Your task to perform on an android device: What is the news today? Image 0: 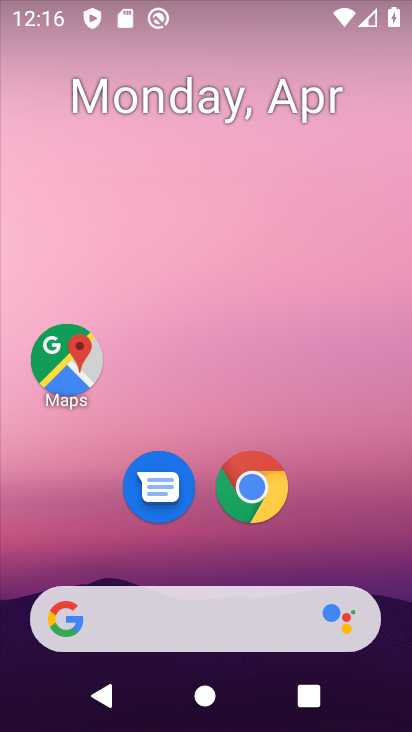
Step 0: drag from (402, 629) to (256, 123)
Your task to perform on an android device: What is the news today? Image 1: 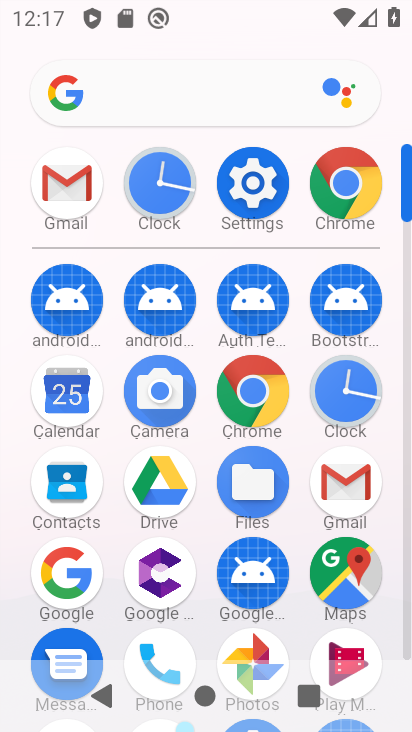
Step 1: press home button
Your task to perform on an android device: What is the news today? Image 2: 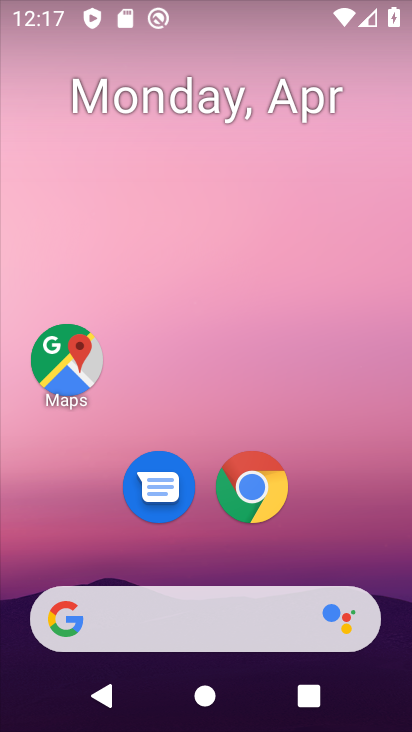
Step 2: click (246, 467)
Your task to perform on an android device: What is the news today? Image 3: 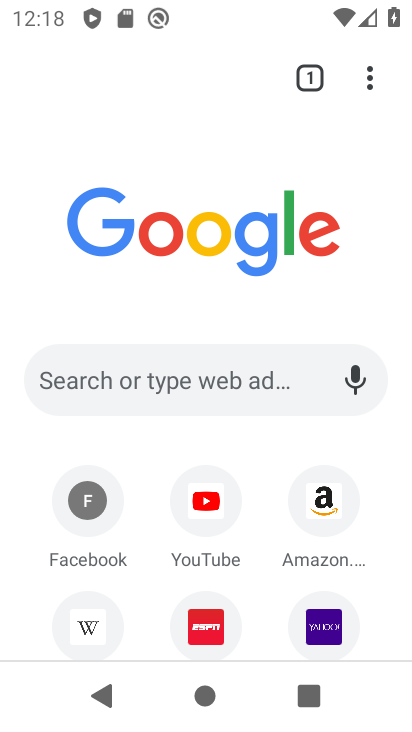
Step 3: drag from (141, 640) to (113, 92)
Your task to perform on an android device: What is the news today? Image 4: 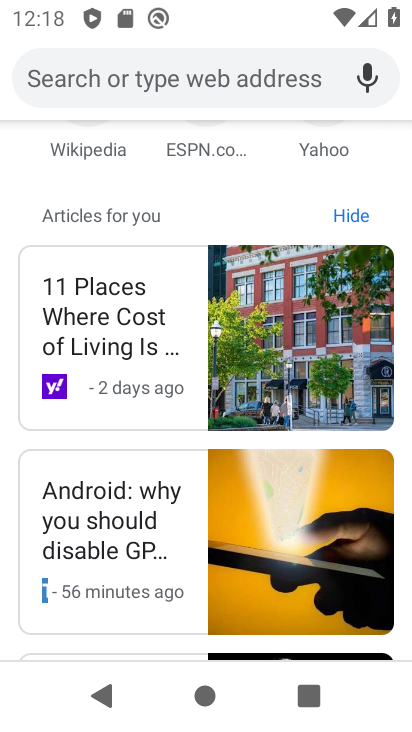
Step 4: click (156, 288)
Your task to perform on an android device: What is the news today? Image 5: 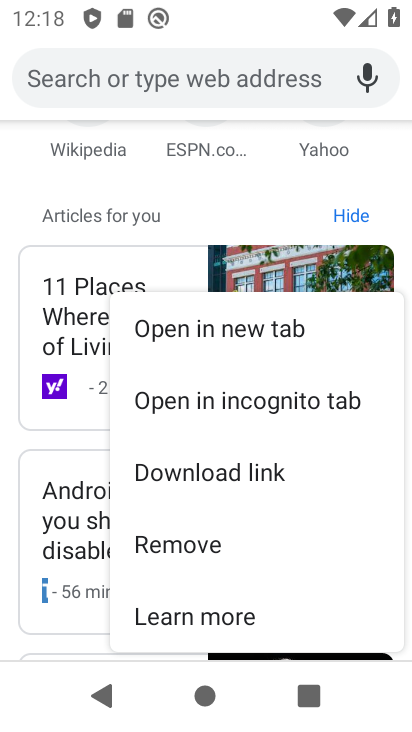
Step 5: click (84, 287)
Your task to perform on an android device: What is the news today? Image 6: 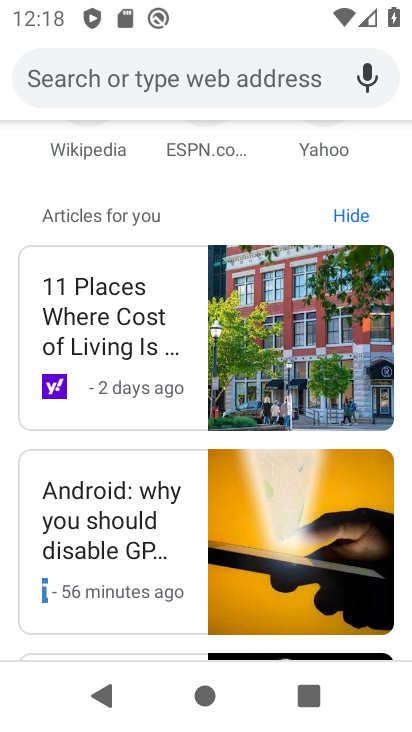
Step 6: click (84, 287)
Your task to perform on an android device: What is the news today? Image 7: 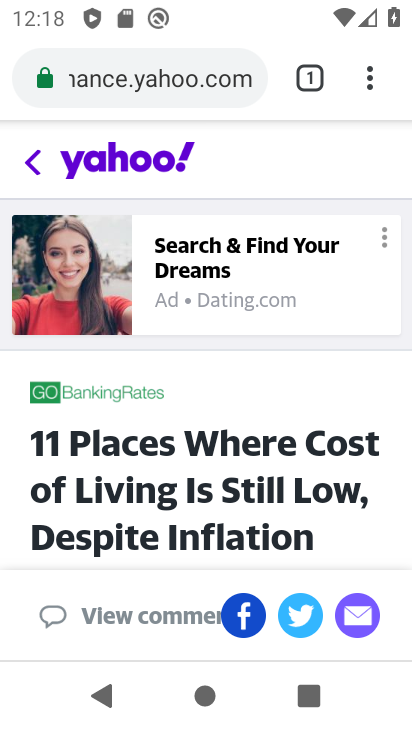
Step 7: task complete